Your task to perform on an android device: Open the calendar and show me this week's events? Image 0: 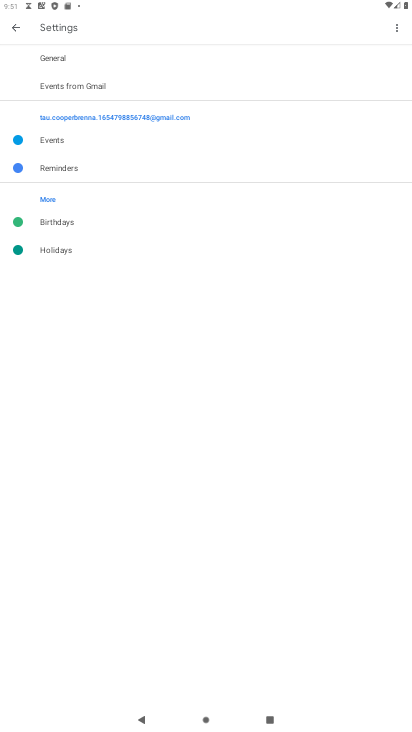
Step 0: press home button
Your task to perform on an android device: Open the calendar and show me this week's events? Image 1: 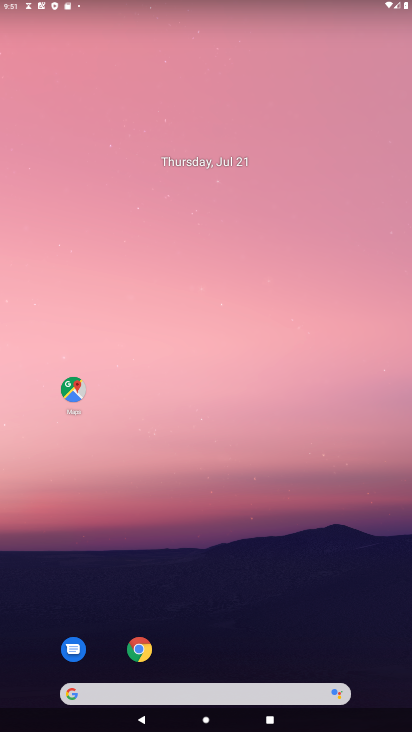
Step 1: drag from (322, 616) to (331, 252)
Your task to perform on an android device: Open the calendar and show me this week's events? Image 2: 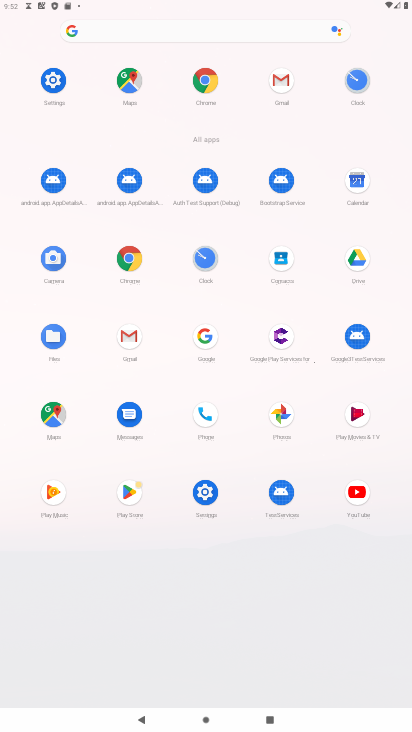
Step 2: click (359, 183)
Your task to perform on an android device: Open the calendar and show me this week's events? Image 3: 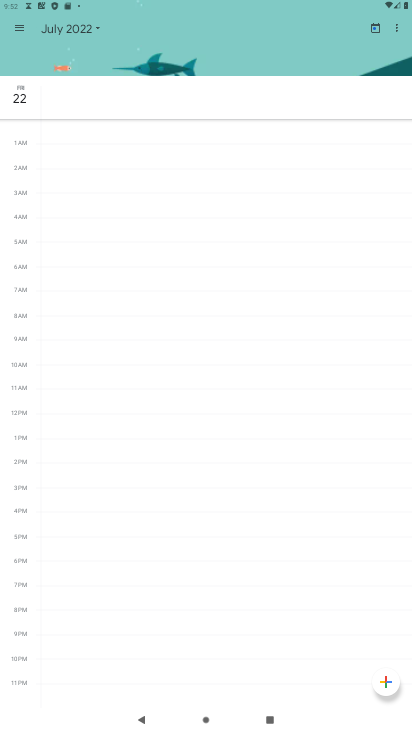
Step 3: click (21, 31)
Your task to perform on an android device: Open the calendar and show me this week's events? Image 4: 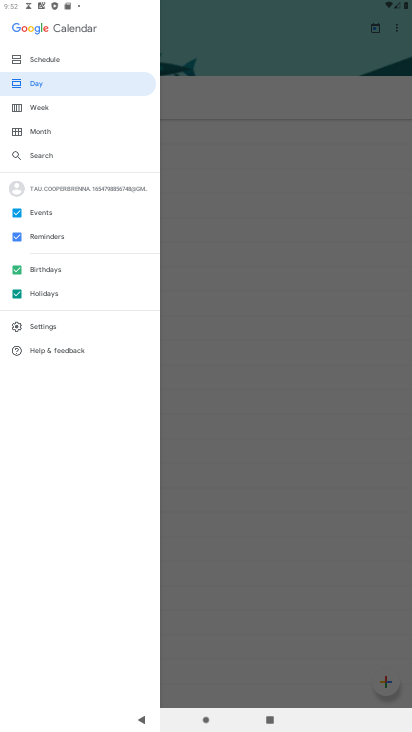
Step 4: click (51, 102)
Your task to perform on an android device: Open the calendar and show me this week's events? Image 5: 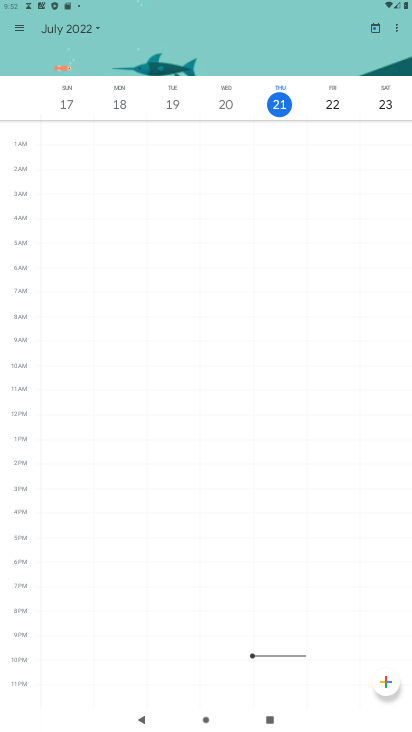
Step 5: task complete